Your task to perform on an android device: turn on data saver in the chrome app Image 0: 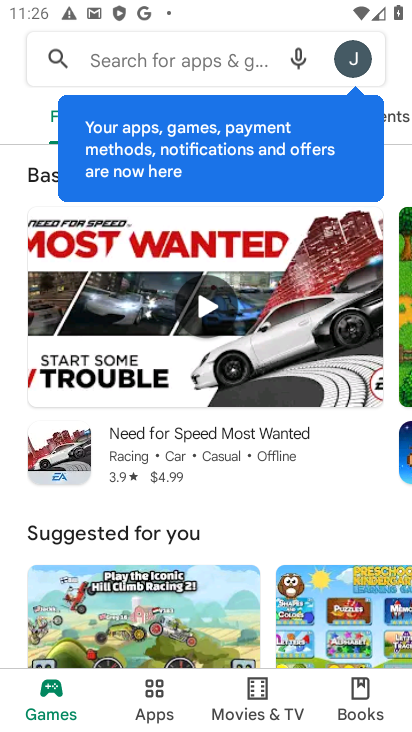
Step 0: press home button
Your task to perform on an android device: turn on data saver in the chrome app Image 1: 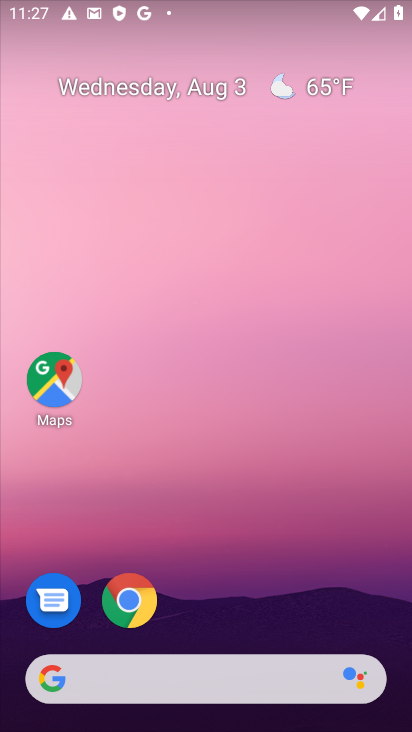
Step 1: click (141, 621)
Your task to perform on an android device: turn on data saver in the chrome app Image 2: 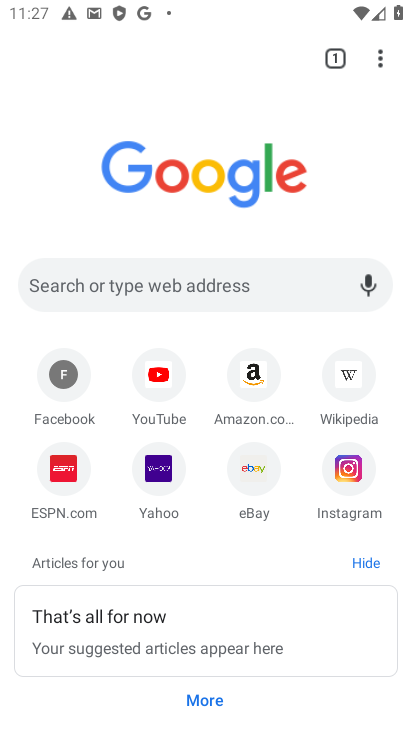
Step 2: click (385, 54)
Your task to perform on an android device: turn on data saver in the chrome app Image 3: 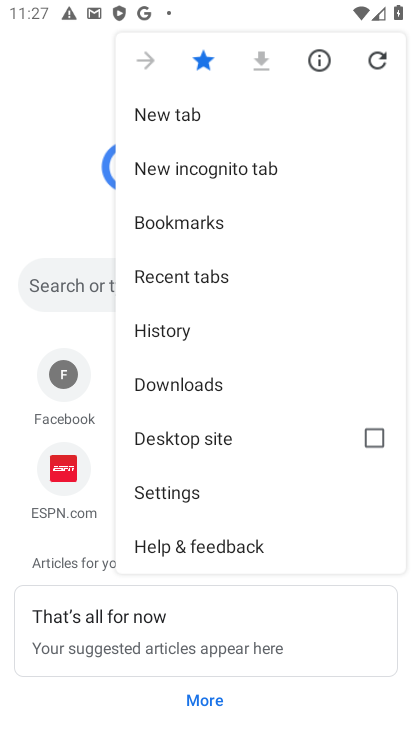
Step 3: click (146, 492)
Your task to perform on an android device: turn on data saver in the chrome app Image 4: 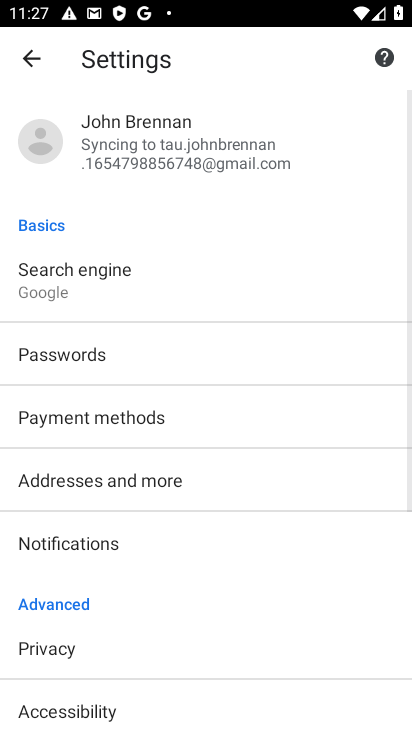
Step 4: drag from (156, 592) to (182, 64)
Your task to perform on an android device: turn on data saver in the chrome app Image 5: 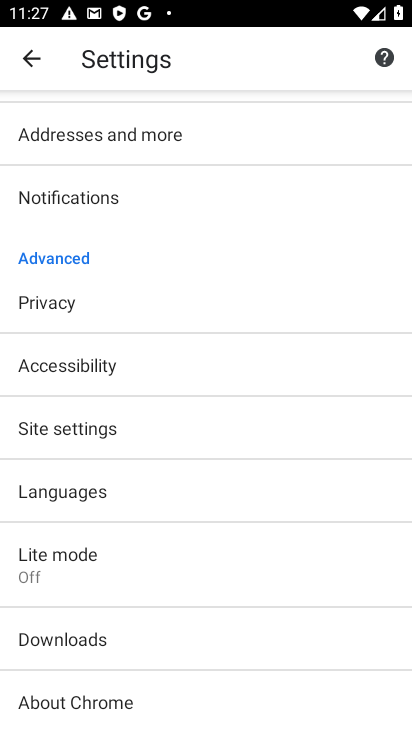
Step 5: click (68, 568)
Your task to perform on an android device: turn on data saver in the chrome app Image 6: 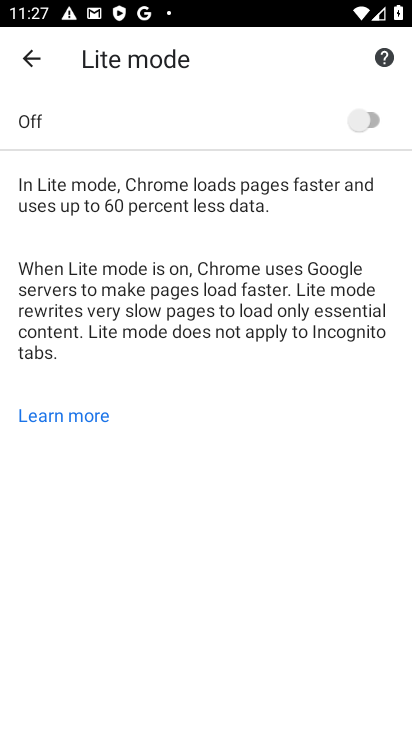
Step 6: click (355, 135)
Your task to perform on an android device: turn on data saver in the chrome app Image 7: 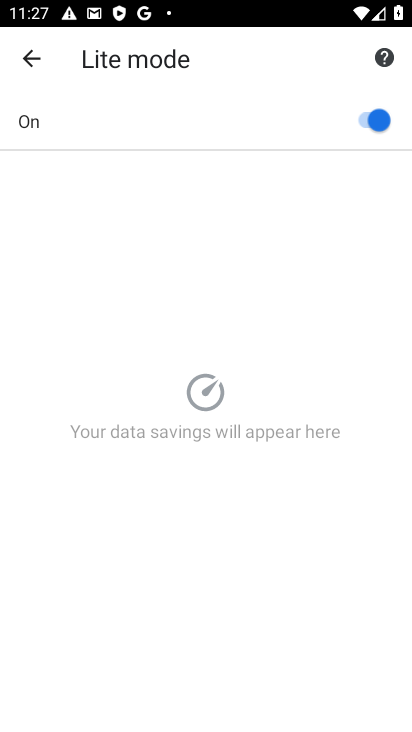
Step 7: task complete